Your task to perform on an android device: Open notification settings Image 0: 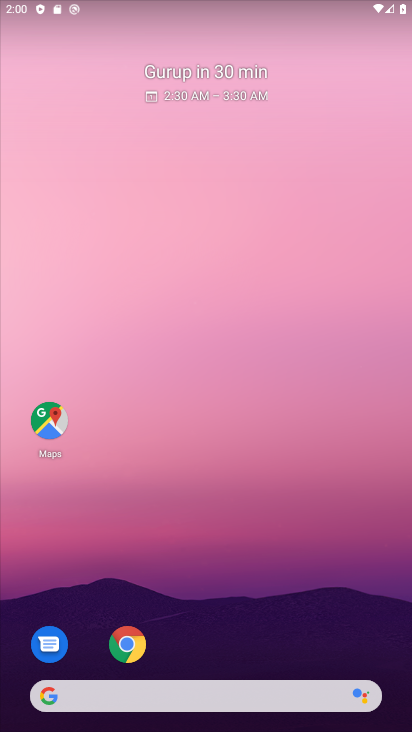
Step 0: drag from (281, 652) to (243, 164)
Your task to perform on an android device: Open notification settings Image 1: 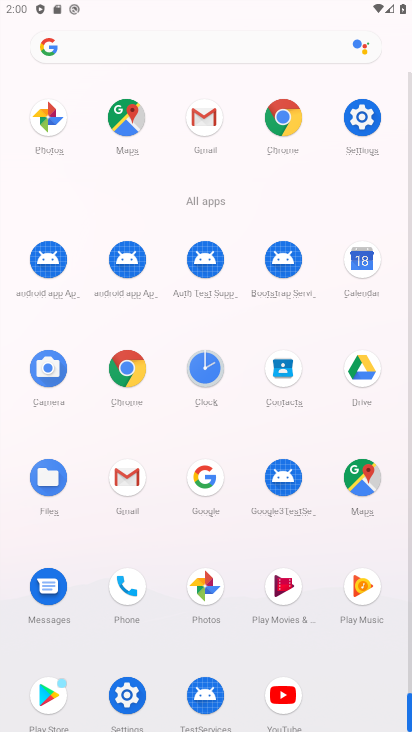
Step 1: click (364, 117)
Your task to perform on an android device: Open notification settings Image 2: 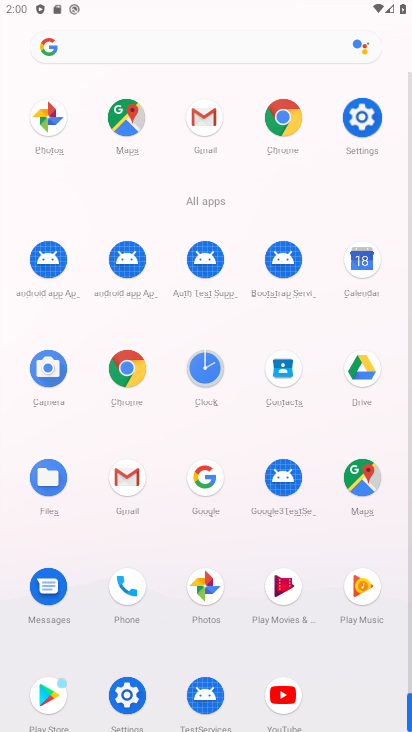
Step 2: click (364, 117)
Your task to perform on an android device: Open notification settings Image 3: 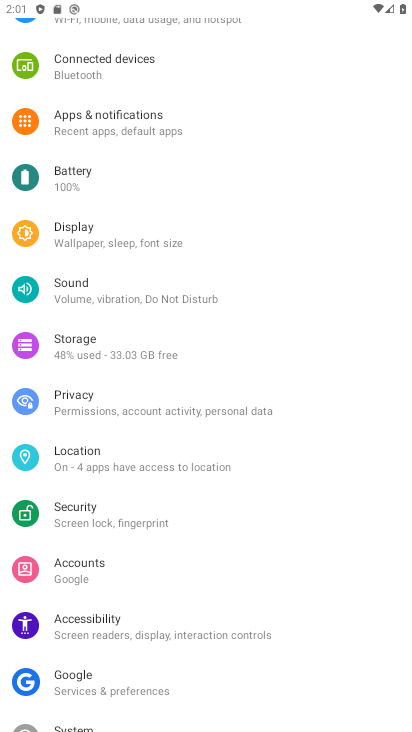
Step 3: click (123, 115)
Your task to perform on an android device: Open notification settings Image 4: 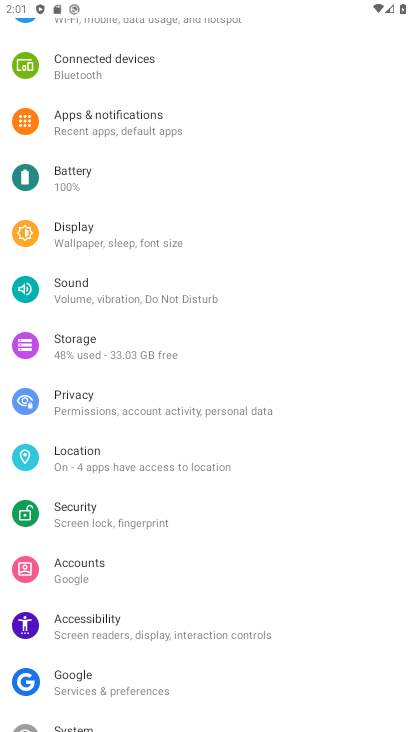
Step 4: click (116, 123)
Your task to perform on an android device: Open notification settings Image 5: 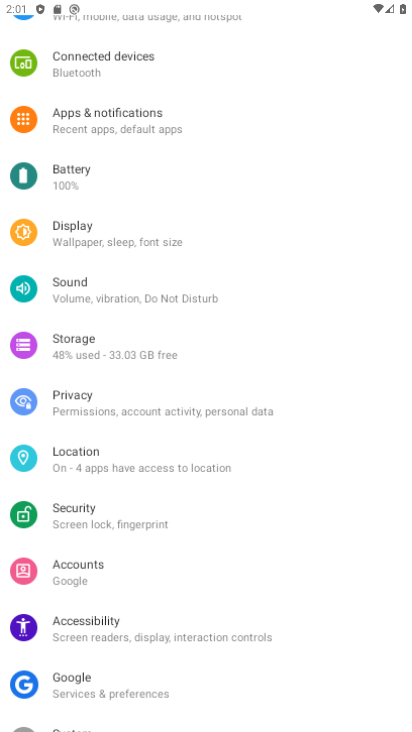
Step 5: click (116, 123)
Your task to perform on an android device: Open notification settings Image 6: 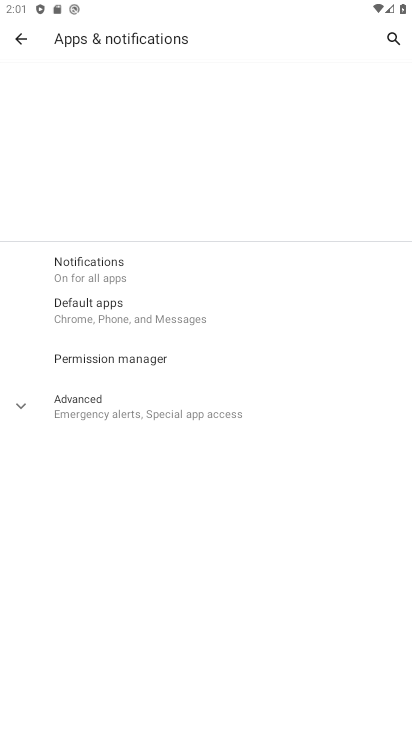
Step 6: click (116, 123)
Your task to perform on an android device: Open notification settings Image 7: 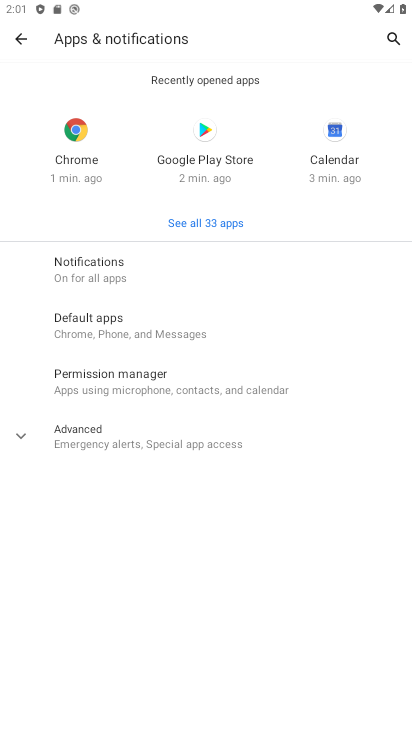
Step 7: click (98, 268)
Your task to perform on an android device: Open notification settings Image 8: 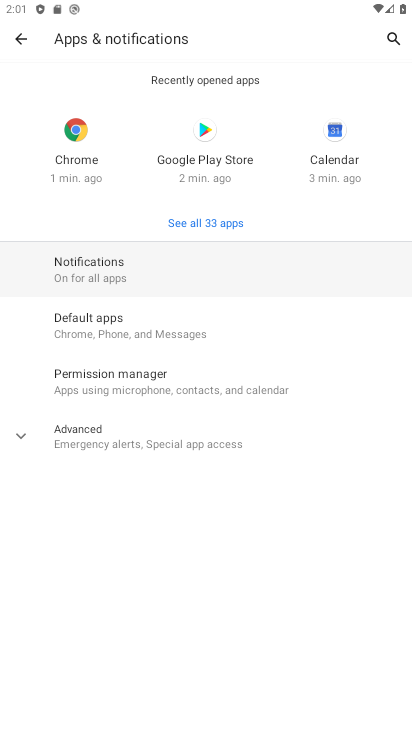
Step 8: click (98, 268)
Your task to perform on an android device: Open notification settings Image 9: 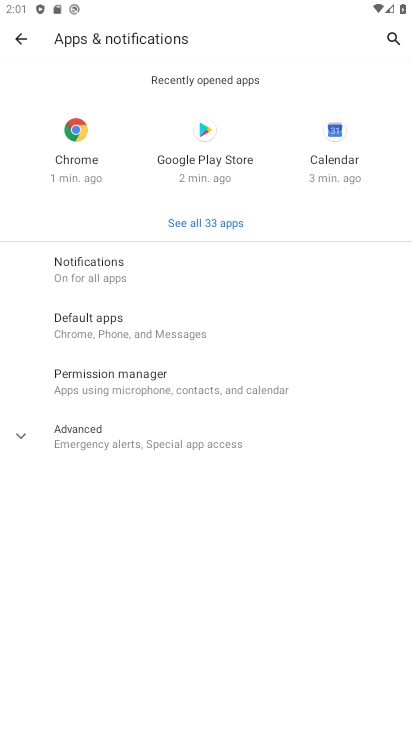
Step 9: click (98, 268)
Your task to perform on an android device: Open notification settings Image 10: 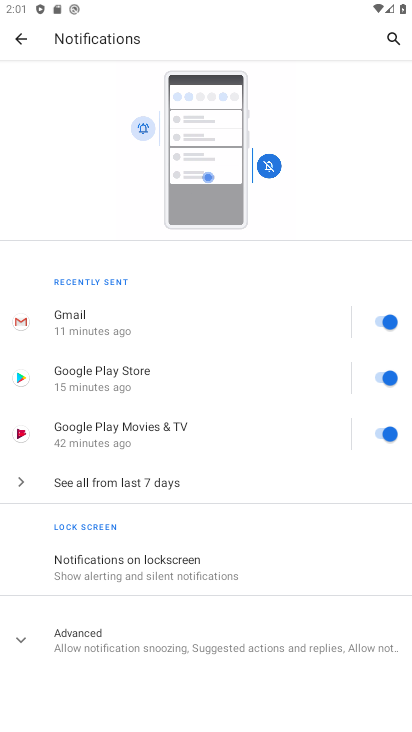
Step 10: click (393, 327)
Your task to perform on an android device: Open notification settings Image 11: 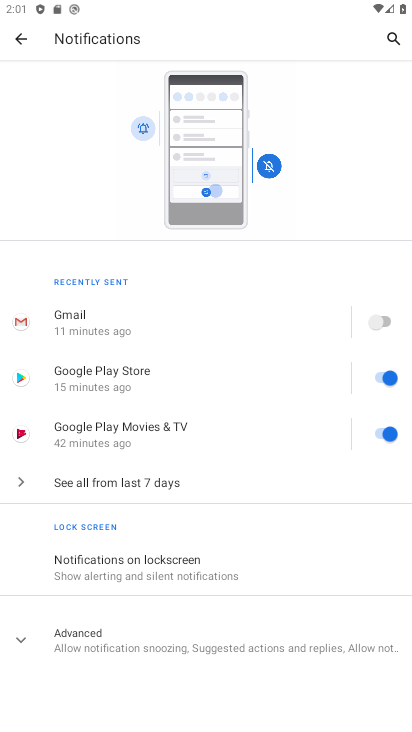
Step 11: click (383, 380)
Your task to perform on an android device: Open notification settings Image 12: 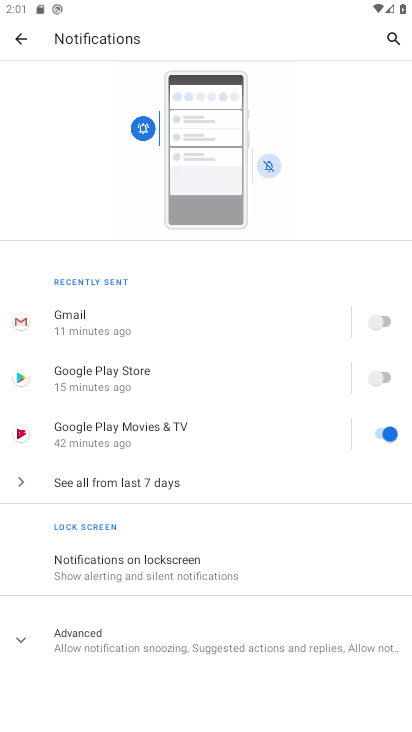
Step 12: click (387, 431)
Your task to perform on an android device: Open notification settings Image 13: 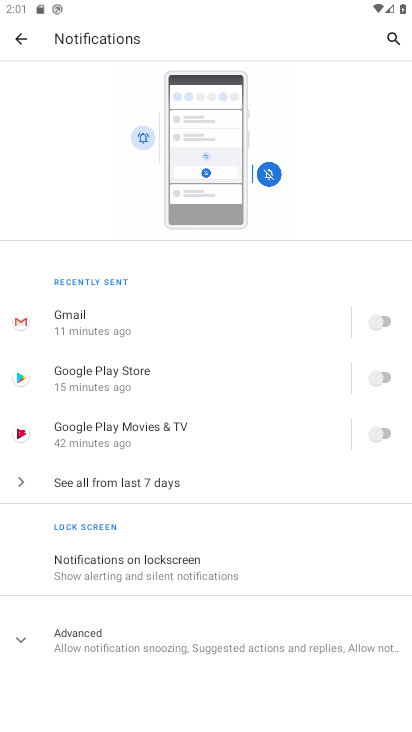
Step 13: task complete